Your task to perform on an android device: Show me popular games on the Play Store Image 0: 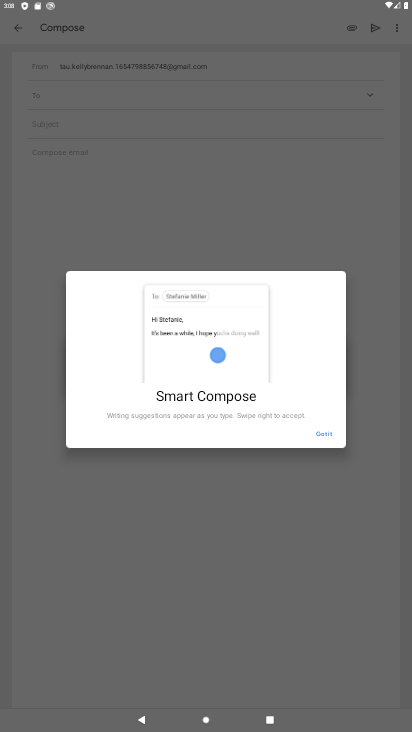
Step 0: press home button
Your task to perform on an android device: Show me popular games on the Play Store Image 1: 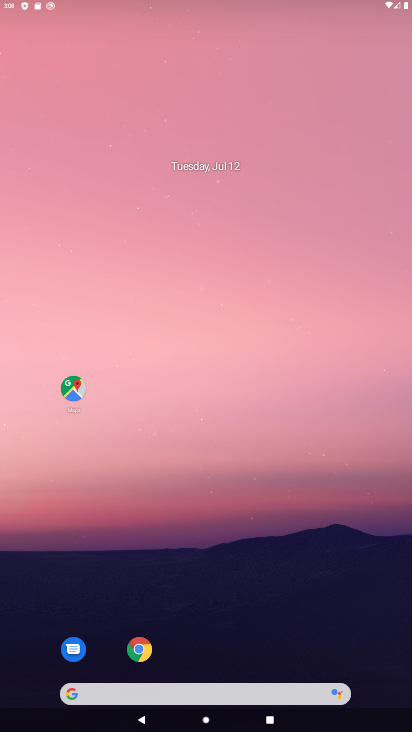
Step 1: drag from (165, 689) to (190, 301)
Your task to perform on an android device: Show me popular games on the Play Store Image 2: 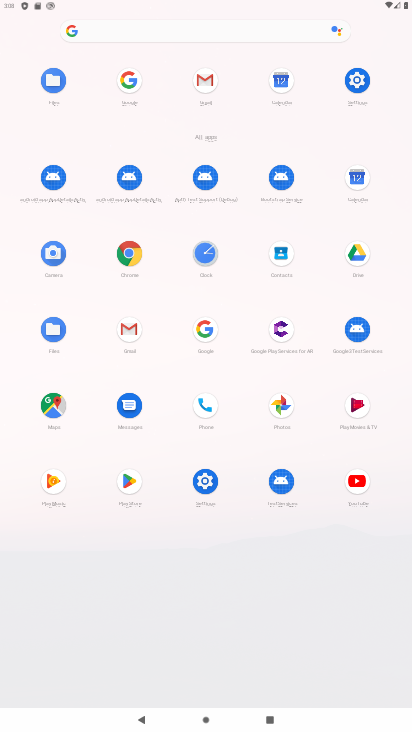
Step 2: click (128, 483)
Your task to perform on an android device: Show me popular games on the Play Store Image 3: 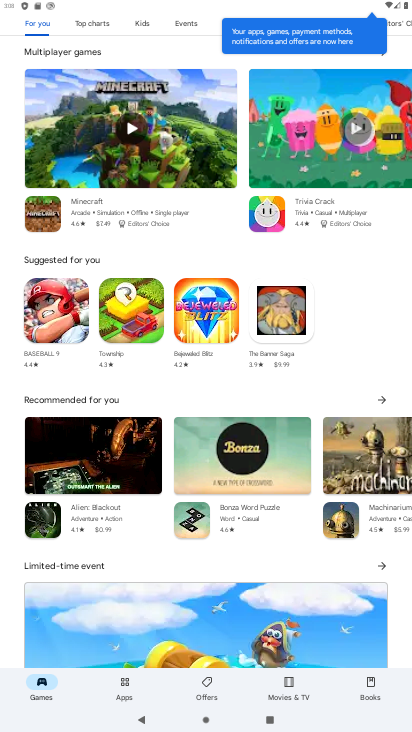
Step 3: drag from (165, 37) to (215, 516)
Your task to perform on an android device: Show me popular games on the Play Store Image 4: 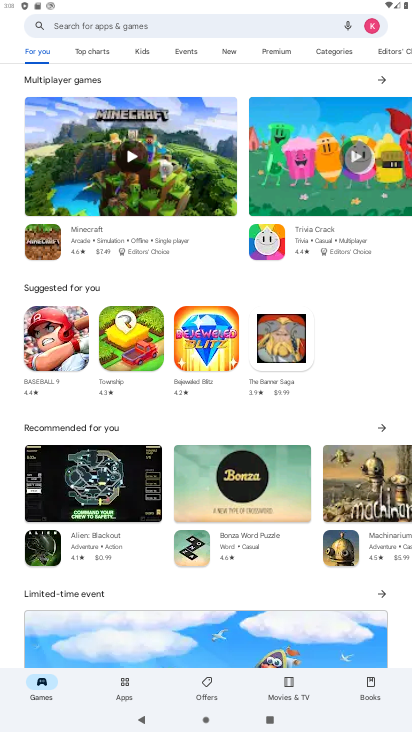
Step 4: click (263, 24)
Your task to perform on an android device: Show me popular games on the Play Store Image 5: 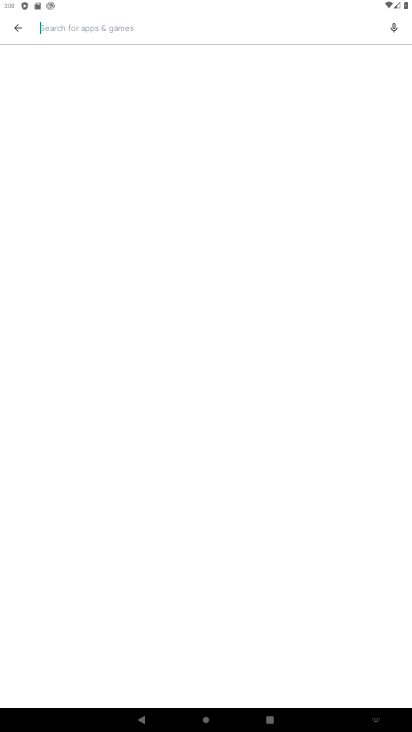
Step 5: type " popular games"
Your task to perform on an android device: Show me popular games on the Play Store Image 6: 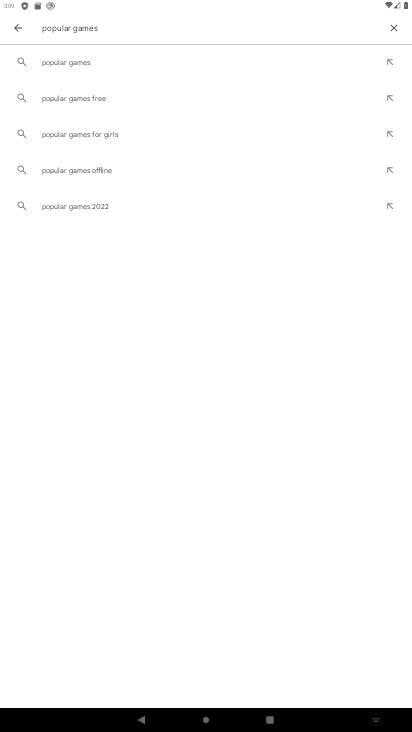
Step 6: click (72, 67)
Your task to perform on an android device: Show me popular games on the Play Store Image 7: 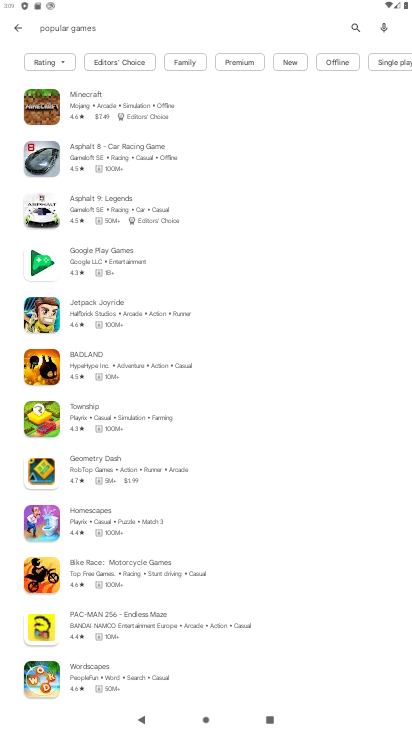
Step 7: task complete